Your task to perform on an android device: open chrome privacy settings Image 0: 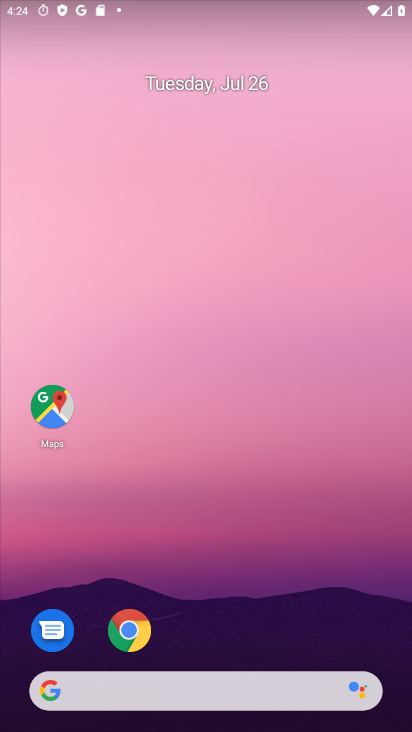
Step 0: drag from (359, 631) to (304, 22)
Your task to perform on an android device: open chrome privacy settings Image 1: 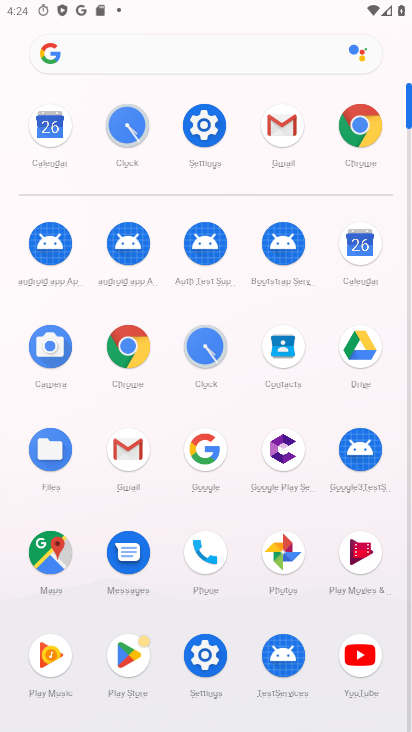
Step 1: click (358, 125)
Your task to perform on an android device: open chrome privacy settings Image 2: 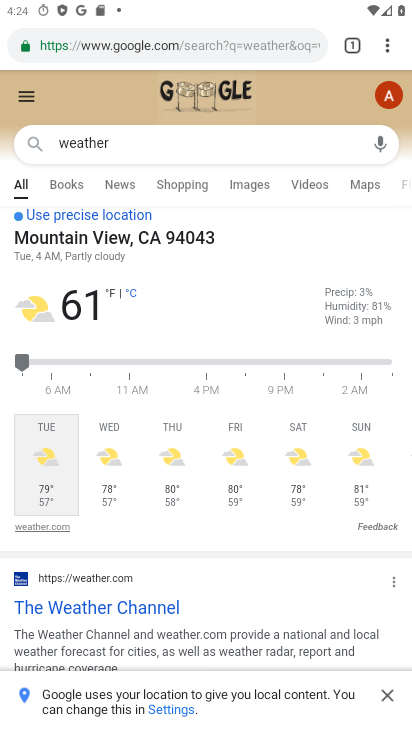
Step 2: click (392, 43)
Your task to perform on an android device: open chrome privacy settings Image 3: 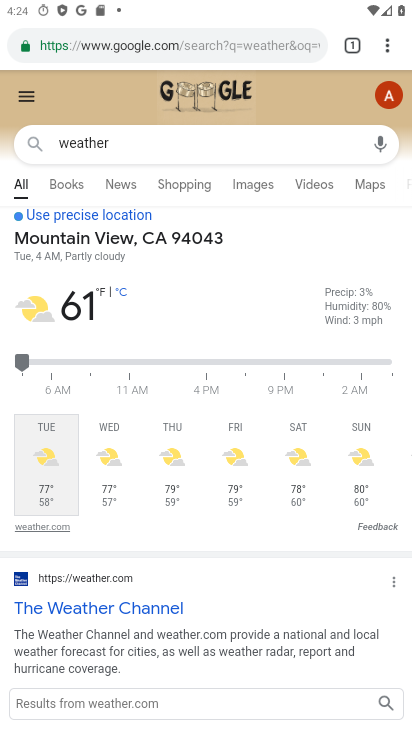
Step 3: drag from (388, 38) to (264, 518)
Your task to perform on an android device: open chrome privacy settings Image 4: 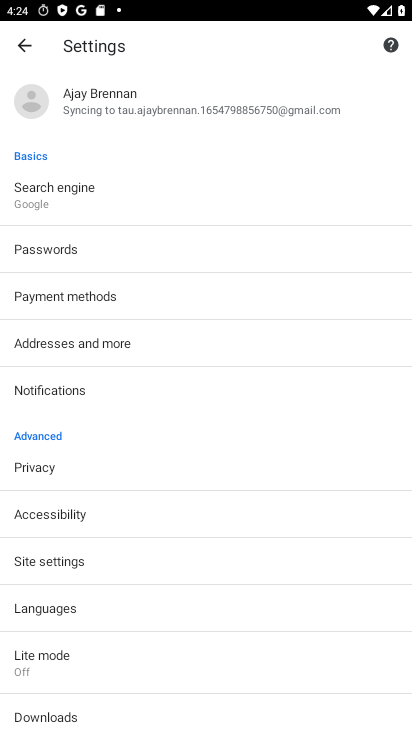
Step 4: click (50, 470)
Your task to perform on an android device: open chrome privacy settings Image 5: 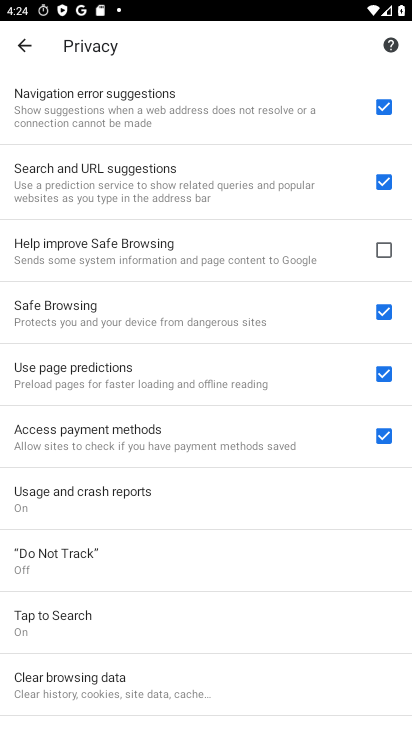
Step 5: task complete